Your task to perform on an android device: Open Amazon Image 0: 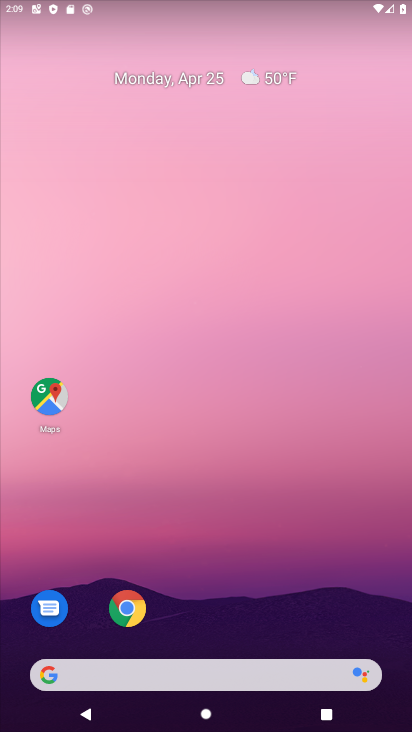
Step 0: click (136, 608)
Your task to perform on an android device: Open Amazon Image 1: 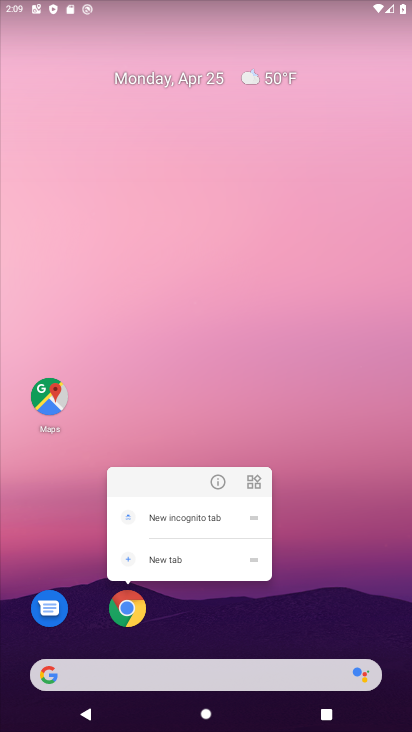
Step 1: click (132, 608)
Your task to perform on an android device: Open Amazon Image 2: 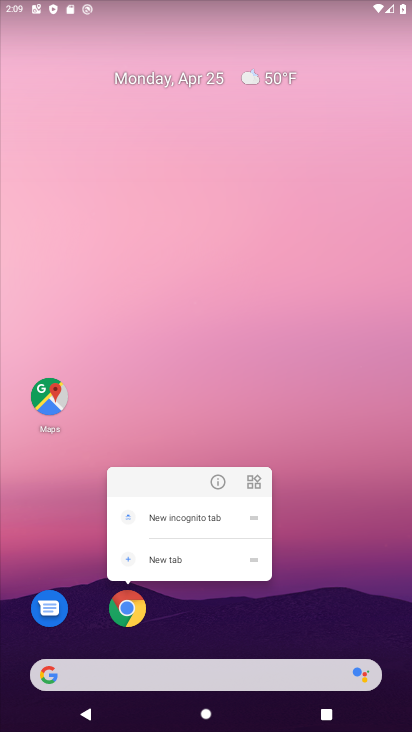
Step 2: click (132, 608)
Your task to perform on an android device: Open Amazon Image 3: 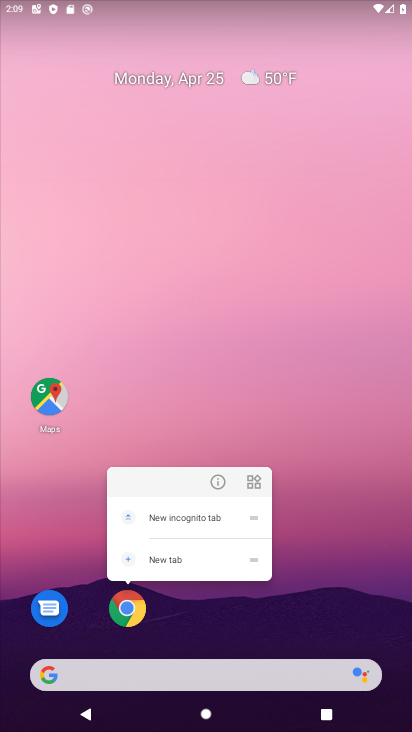
Step 3: click (132, 608)
Your task to perform on an android device: Open Amazon Image 4: 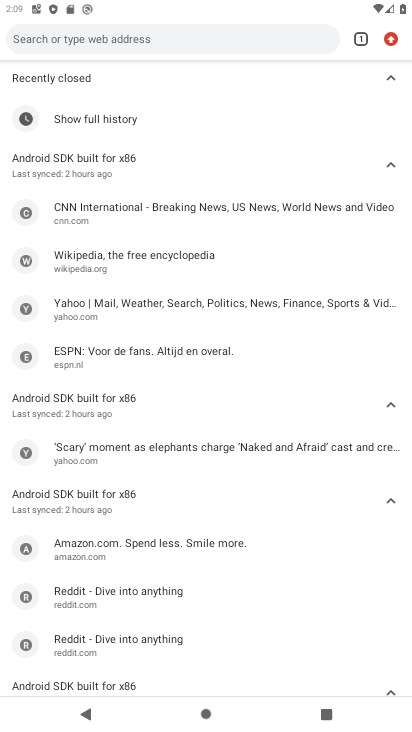
Step 4: click (356, 44)
Your task to perform on an android device: Open Amazon Image 5: 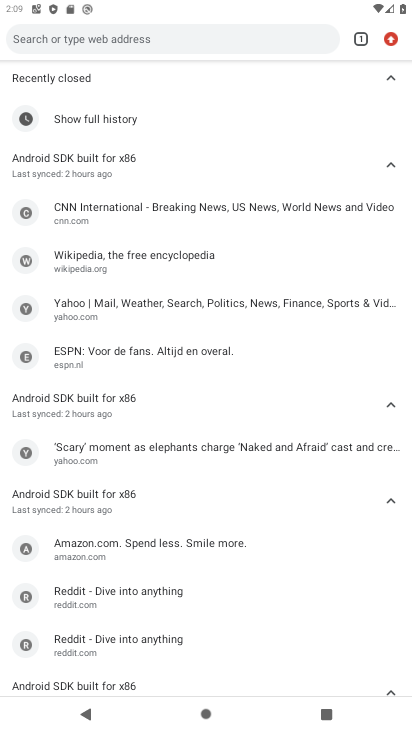
Step 5: click (320, 72)
Your task to perform on an android device: Open Amazon Image 6: 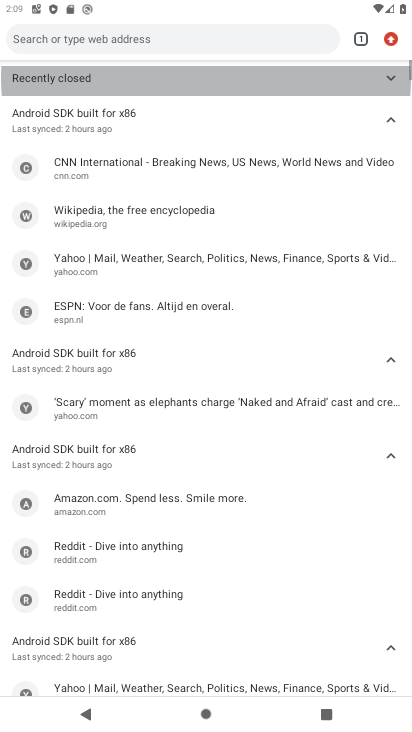
Step 6: click (362, 42)
Your task to perform on an android device: Open Amazon Image 7: 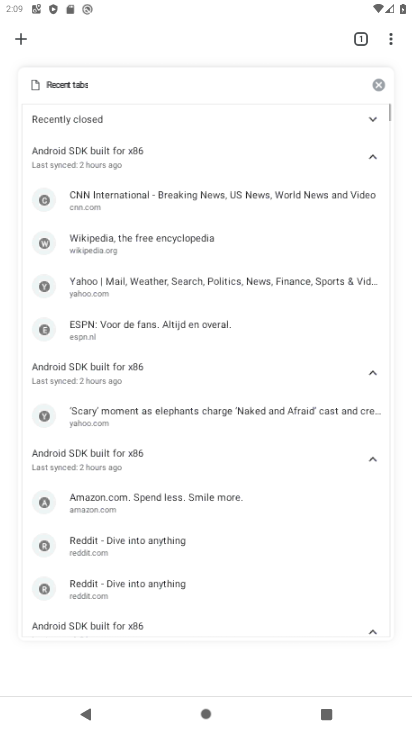
Step 7: click (17, 34)
Your task to perform on an android device: Open Amazon Image 8: 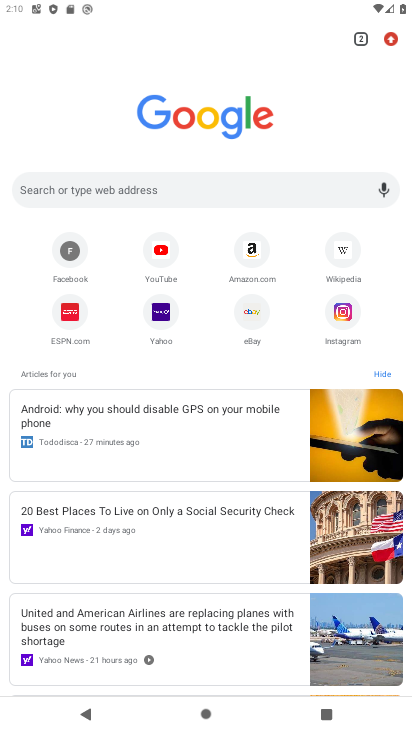
Step 8: click (248, 247)
Your task to perform on an android device: Open Amazon Image 9: 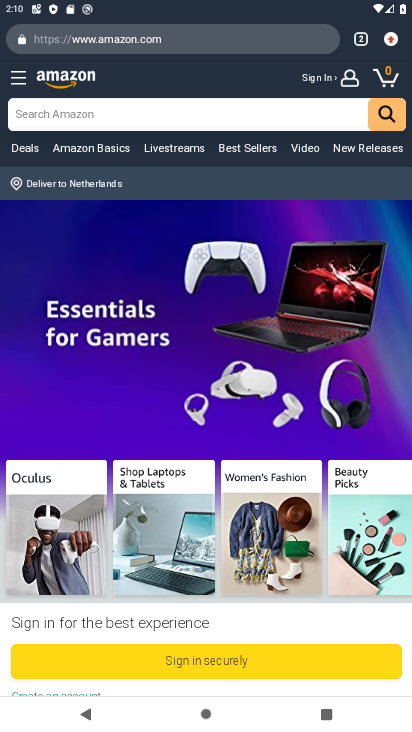
Step 9: task complete